Your task to perform on an android device: set default search engine in the chrome app Image 0: 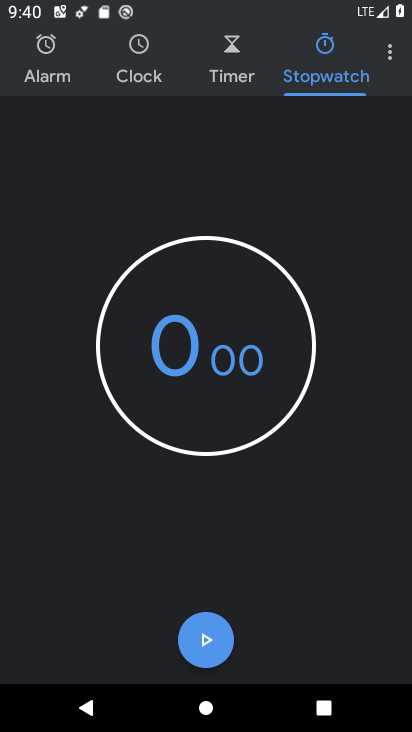
Step 0: press home button
Your task to perform on an android device: set default search engine in the chrome app Image 1: 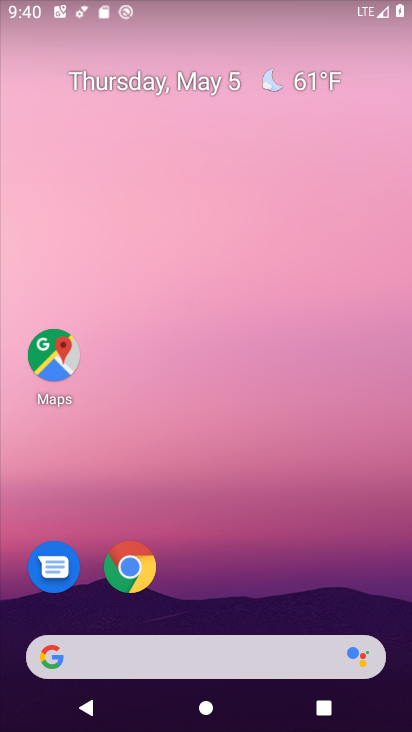
Step 1: click (133, 572)
Your task to perform on an android device: set default search engine in the chrome app Image 2: 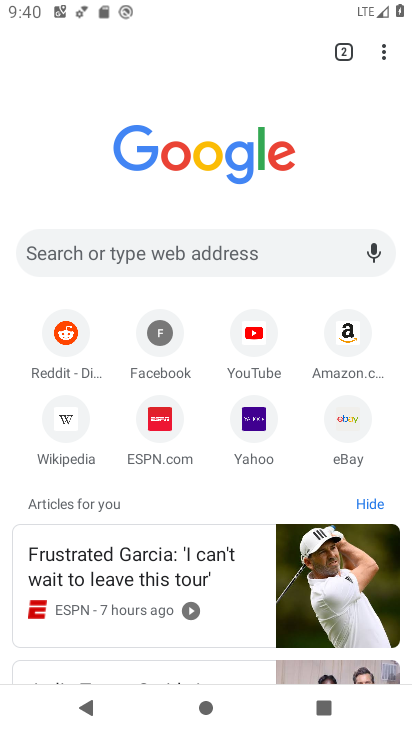
Step 2: click (390, 52)
Your task to perform on an android device: set default search engine in the chrome app Image 3: 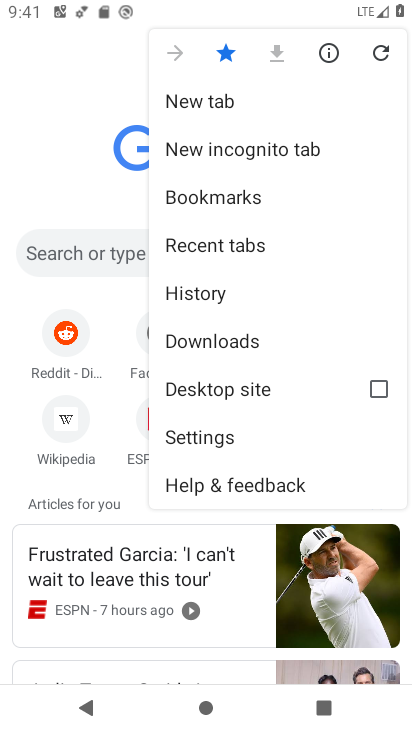
Step 3: click (203, 431)
Your task to perform on an android device: set default search engine in the chrome app Image 4: 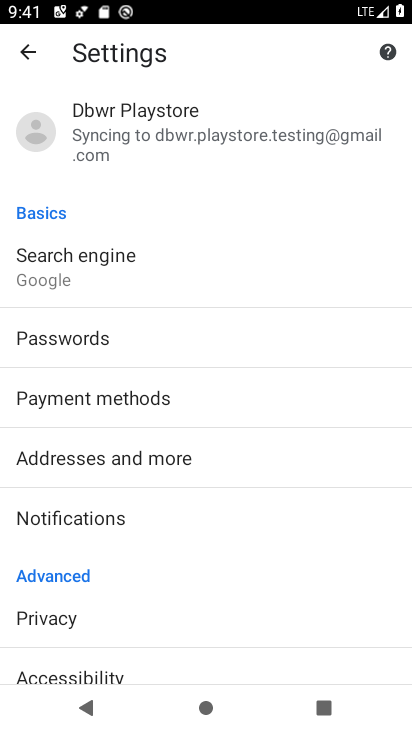
Step 4: click (128, 272)
Your task to perform on an android device: set default search engine in the chrome app Image 5: 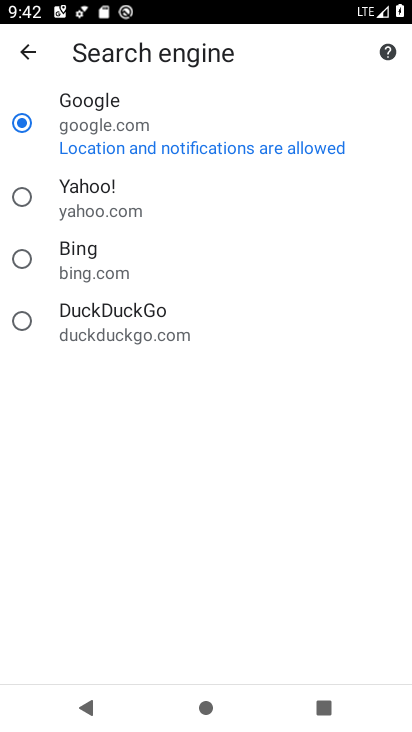
Step 5: task complete